Your task to perform on an android device: visit the assistant section in the google photos Image 0: 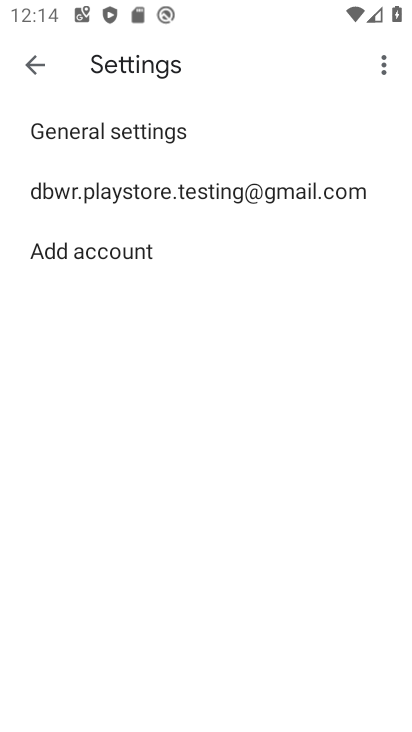
Step 0: press home button
Your task to perform on an android device: visit the assistant section in the google photos Image 1: 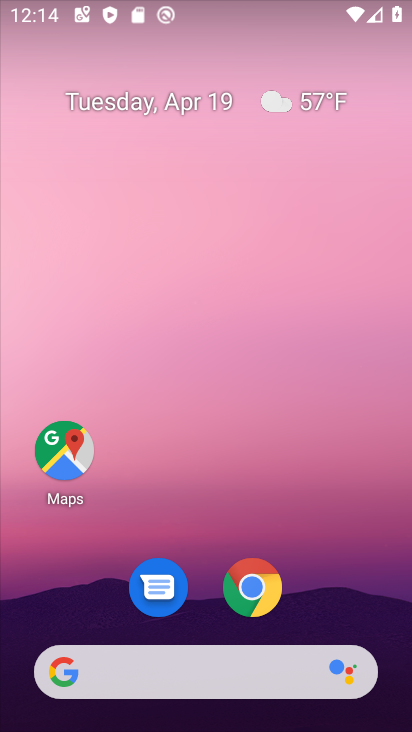
Step 1: drag from (269, 479) to (293, 112)
Your task to perform on an android device: visit the assistant section in the google photos Image 2: 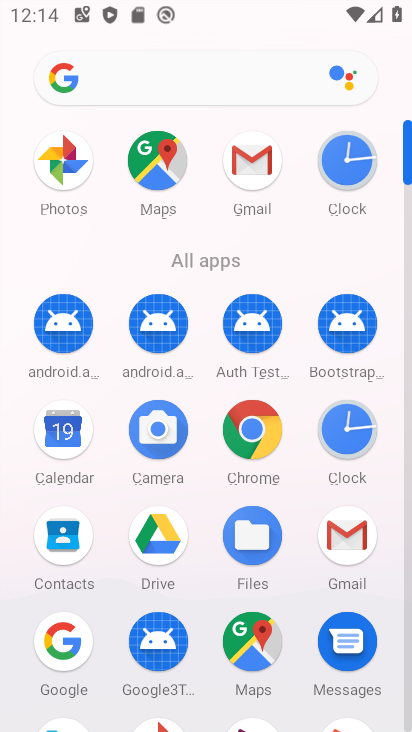
Step 2: click (70, 157)
Your task to perform on an android device: visit the assistant section in the google photos Image 3: 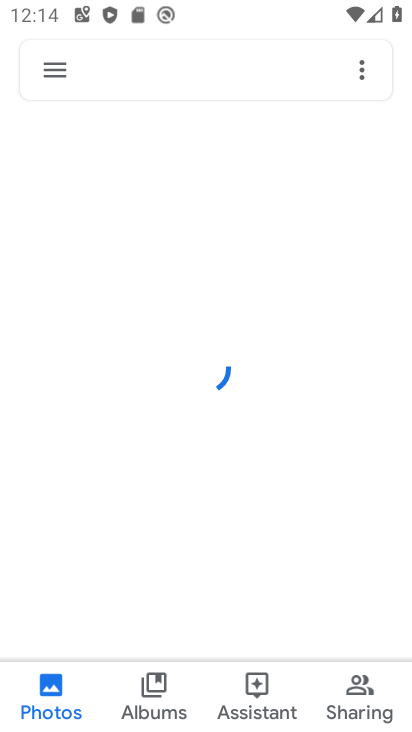
Step 3: click (258, 705)
Your task to perform on an android device: visit the assistant section in the google photos Image 4: 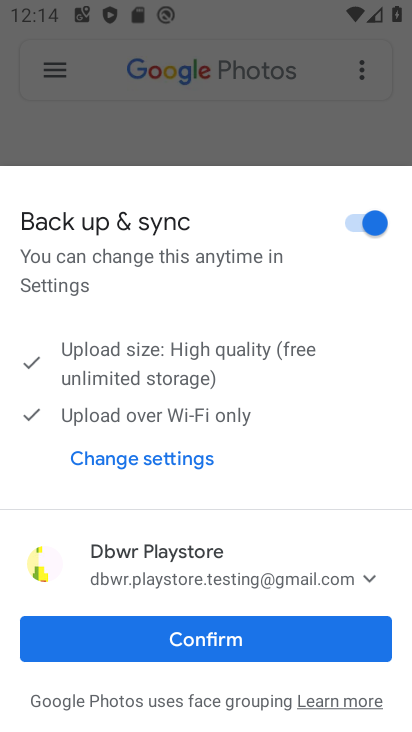
Step 4: click (196, 637)
Your task to perform on an android device: visit the assistant section in the google photos Image 5: 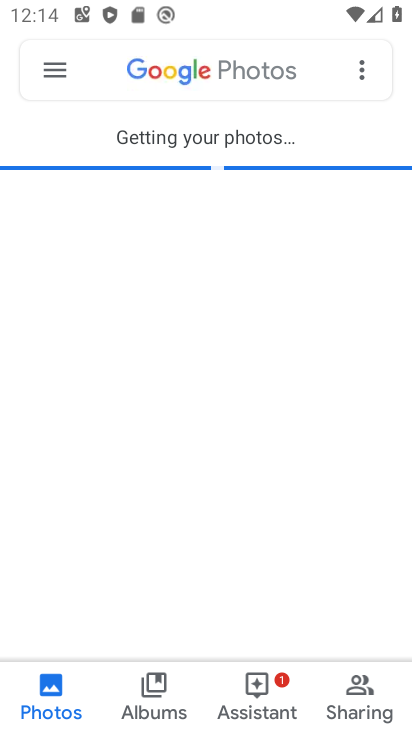
Step 5: click (259, 690)
Your task to perform on an android device: visit the assistant section in the google photos Image 6: 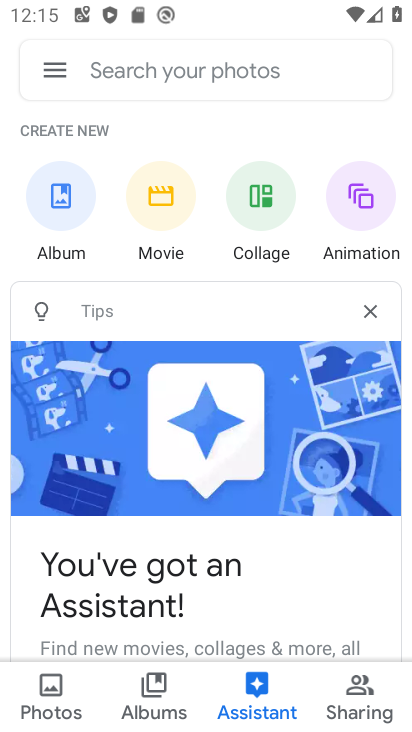
Step 6: task complete